Your task to perform on an android device: What's the weather today? Image 0: 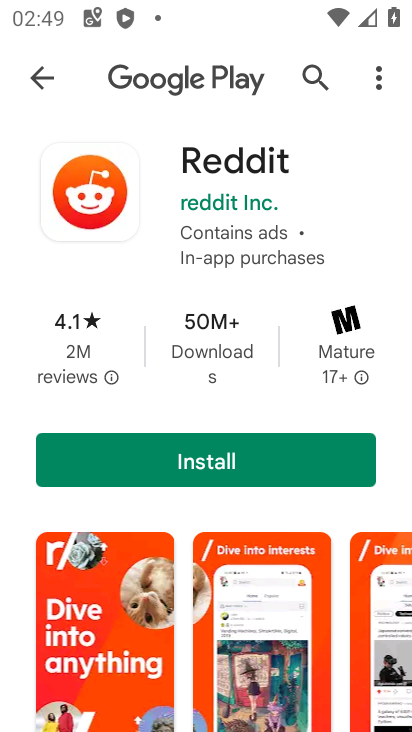
Step 0: press home button
Your task to perform on an android device: What's the weather today? Image 1: 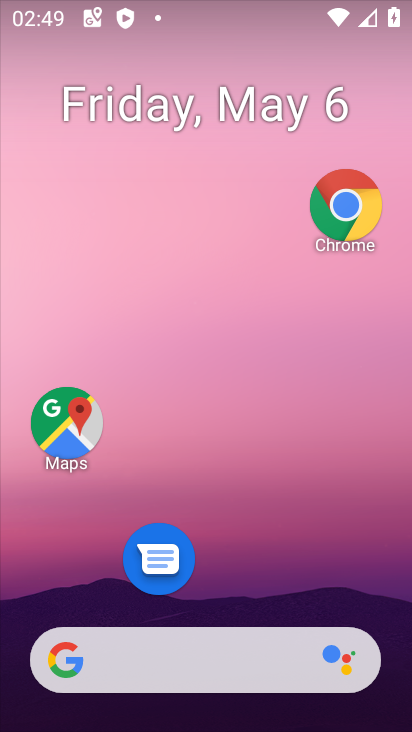
Step 1: click (52, 662)
Your task to perform on an android device: What's the weather today? Image 2: 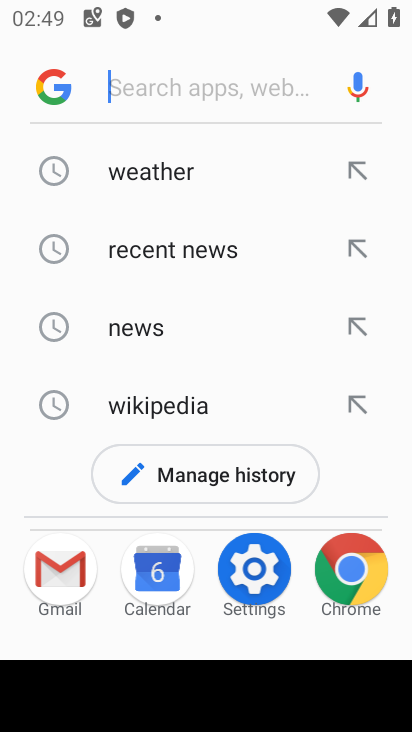
Step 2: click (175, 169)
Your task to perform on an android device: What's the weather today? Image 3: 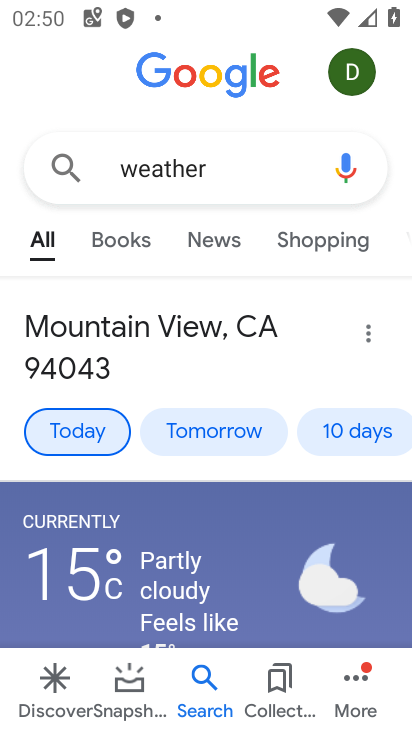
Step 3: task complete